Your task to perform on an android device: make emails show in primary in the gmail app Image 0: 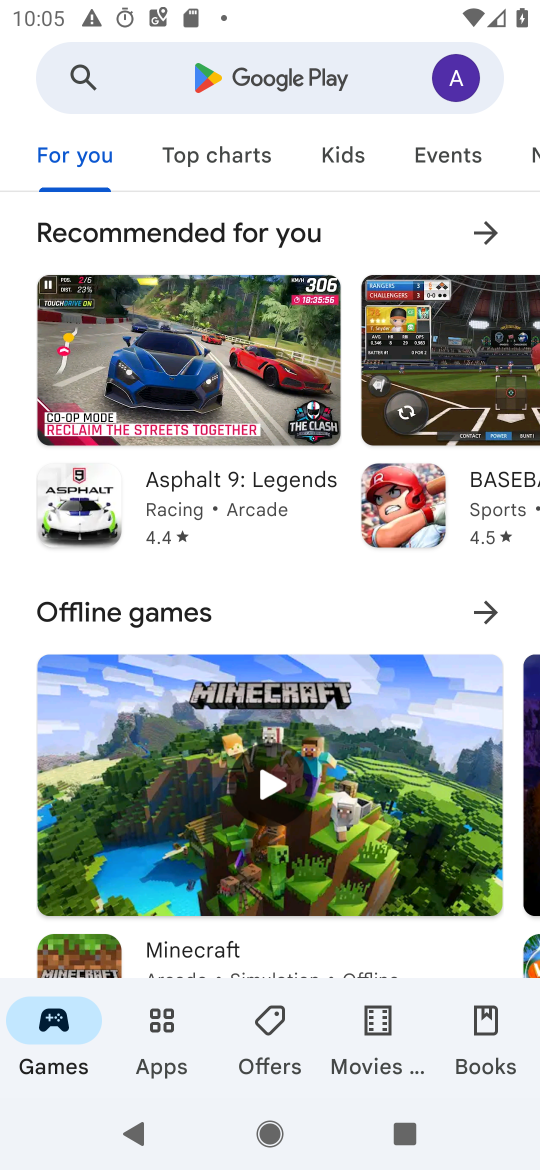
Step 0: press home button
Your task to perform on an android device: make emails show in primary in the gmail app Image 1: 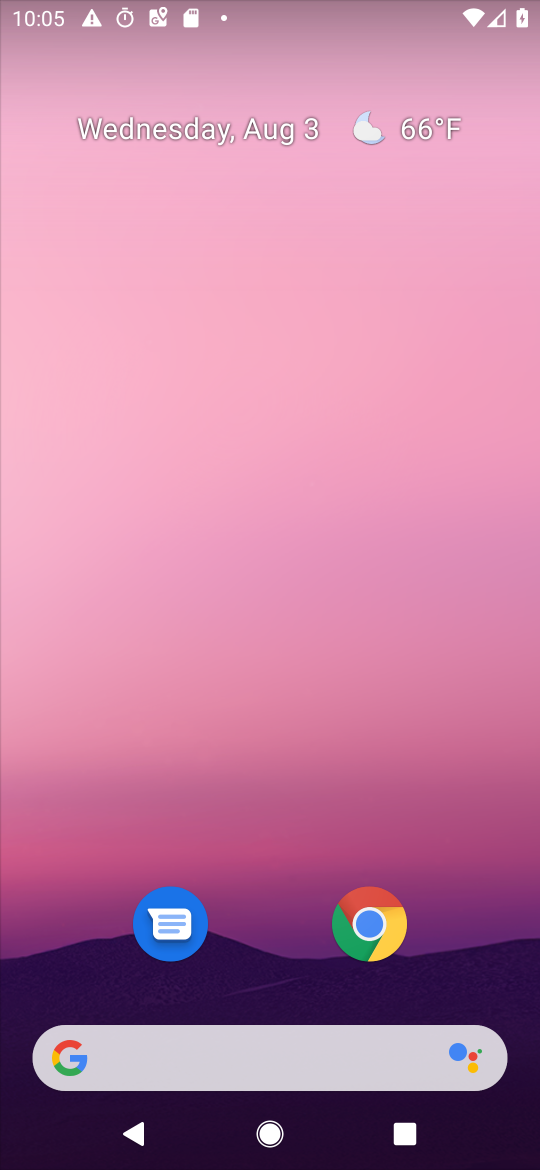
Step 1: drag from (286, 971) to (382, 243)
Your task to perform on an android device: make emails show in primary in the gmail app Image 2: 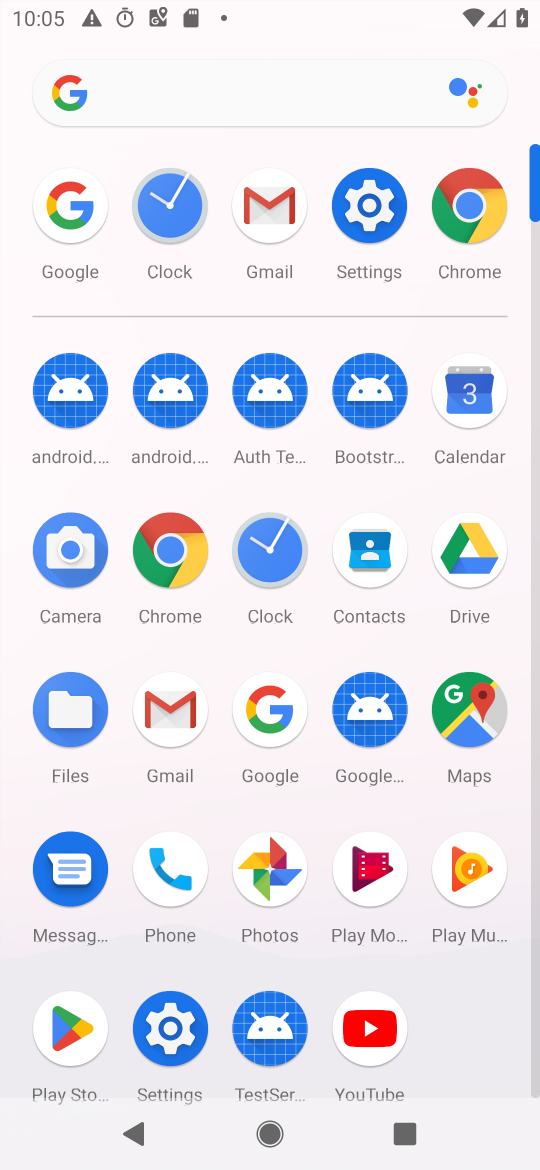
Step 2: click (166, 701)
Your task to perform on an android device: make emails show in primary in the gmail app Image 3: 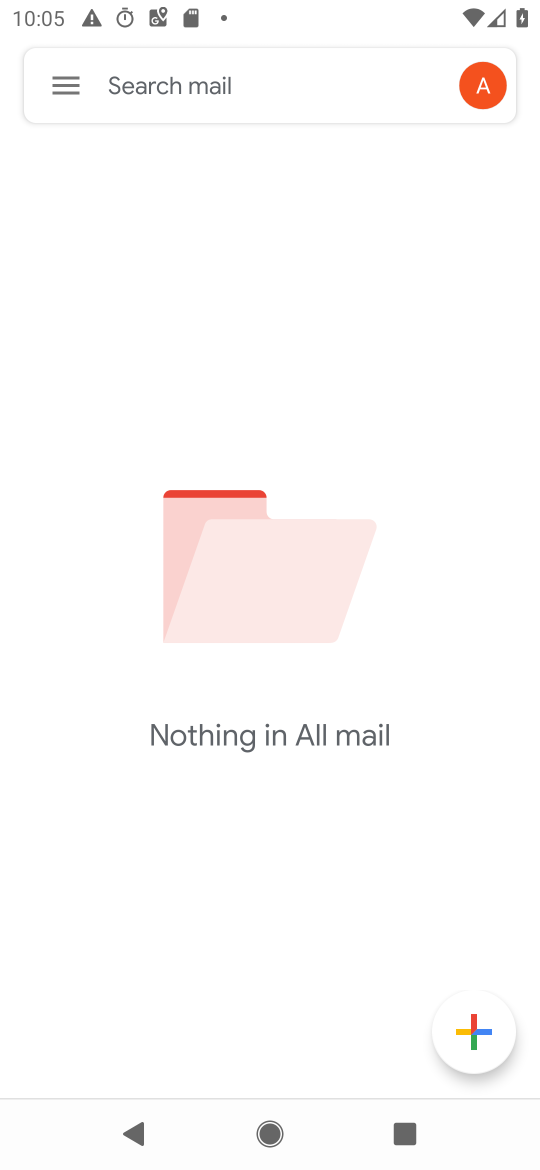
Step 3: click (48, 59)
Your task to perform on an android device: make emails show in primary in the gmail app Image 4: 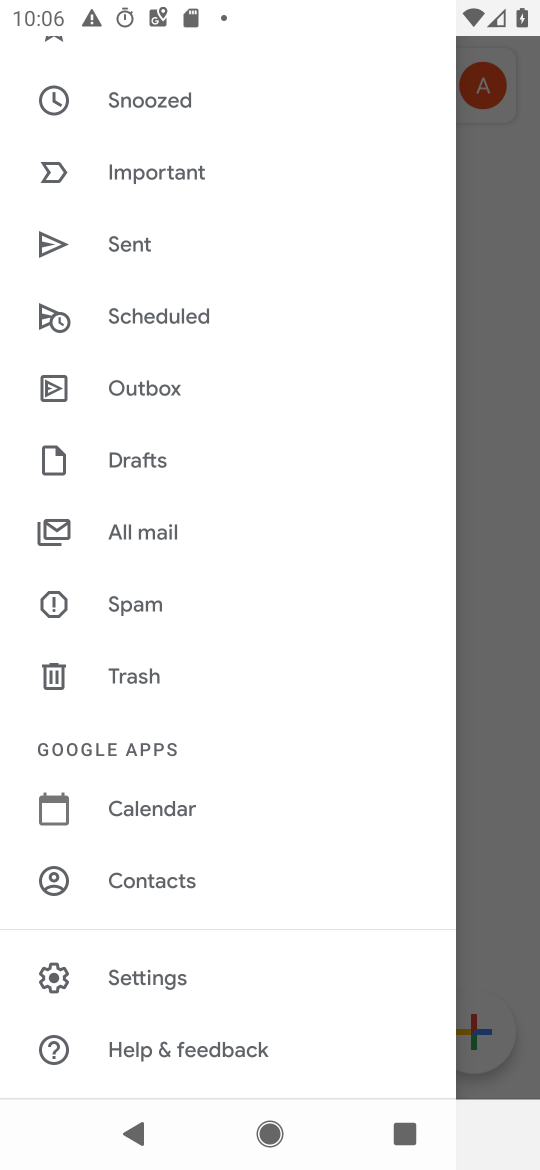
Step 4: click (136, 967)
Your task to perform on an android device: make emails show in primary in the gmail app Image 5: 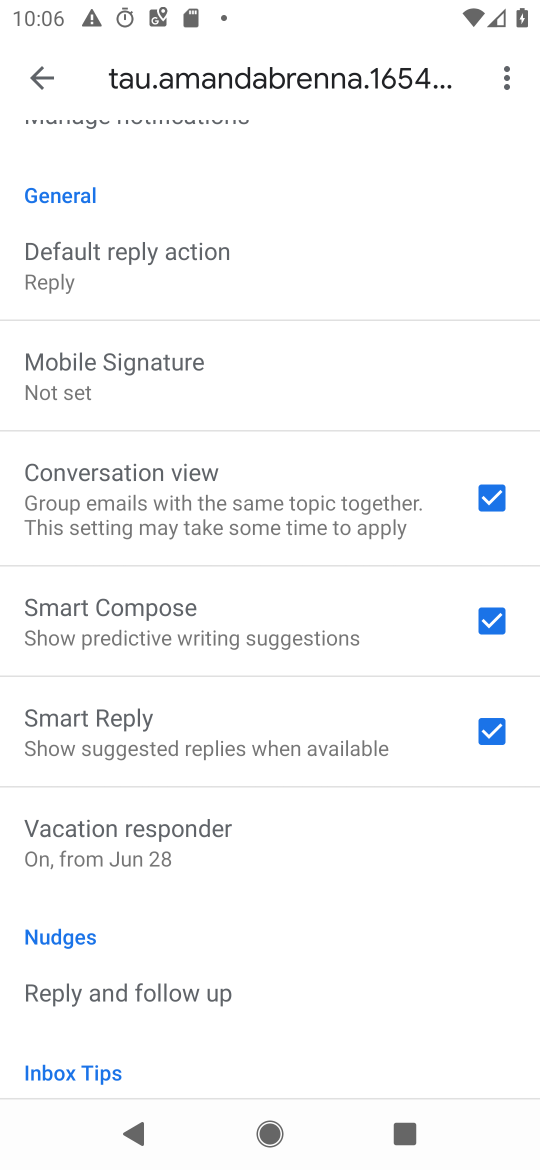
Step 5: drag from (141, 261) to (205, 1076)
Your task to perform on an android device: make emails show in primary in the gmail app Image 6: 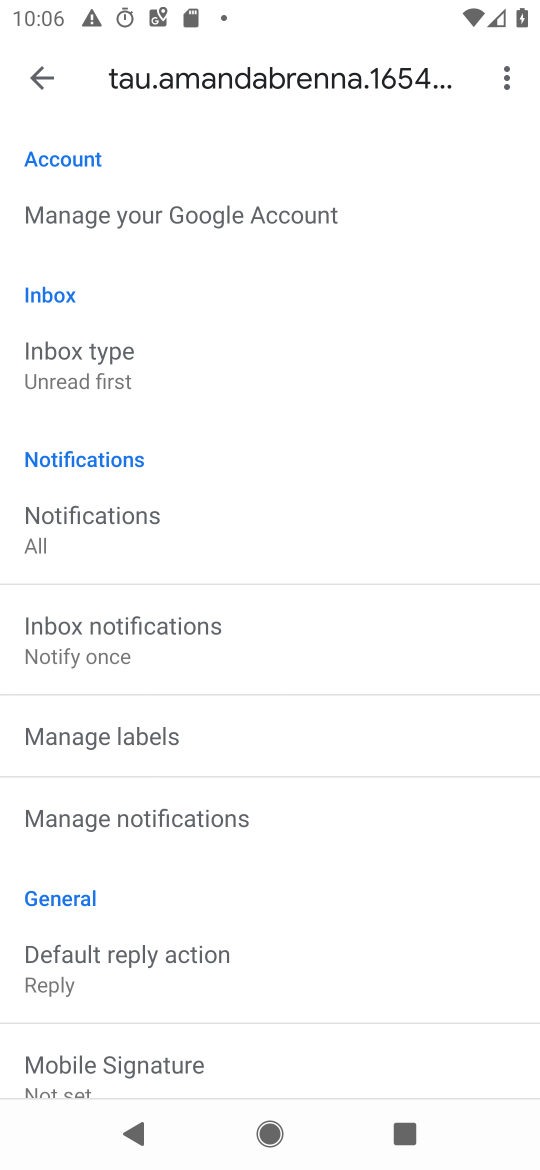
Step 6: drag from (180, 272) to (253, 1078)
Your task to perform on an android device: make emails show in primary in the gmail app Image 7: 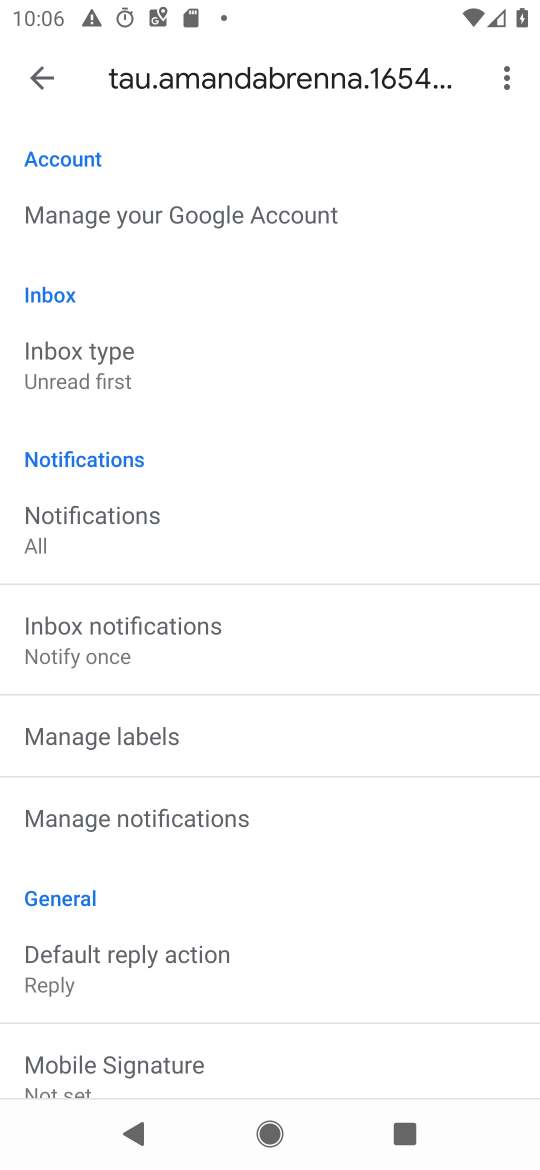
Step 7: click (153, 361)
Your task to perform on an android device: make emails show in primary in the gmail app Image 8: 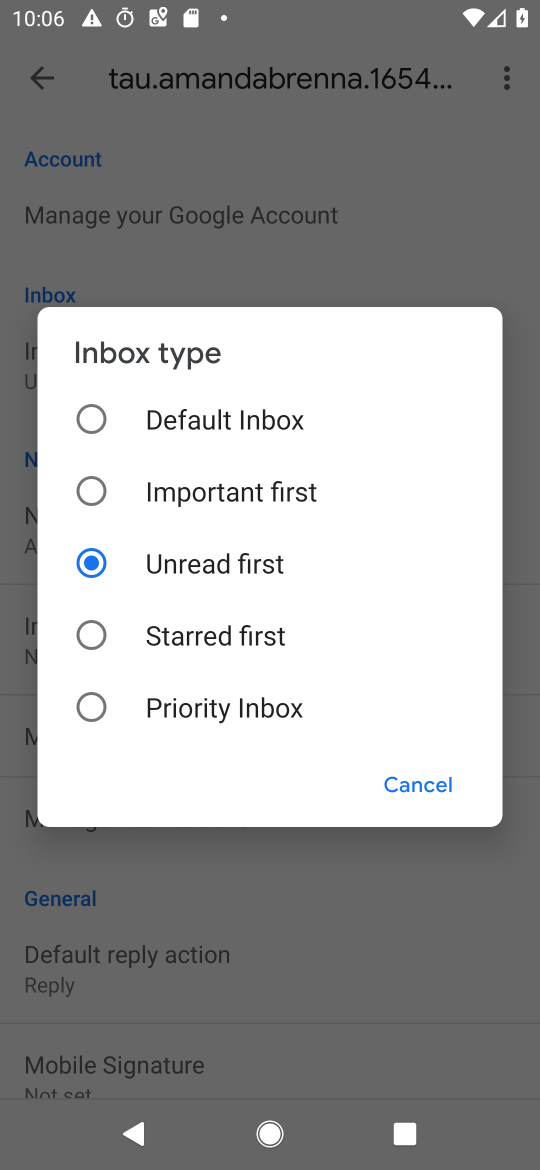
Step 8: click (87, 409)
Your task to perform on an android device: make emails show in primary in the gmail app Image 9: 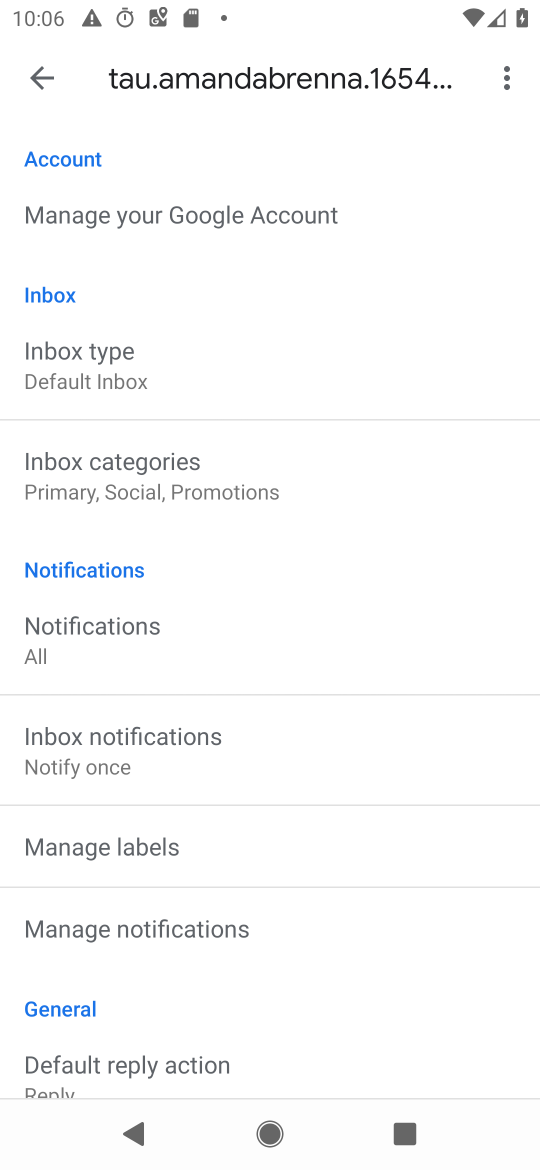
Step 9: task complete